Your task to perform on an android device: change the clock display to analog Image 0: 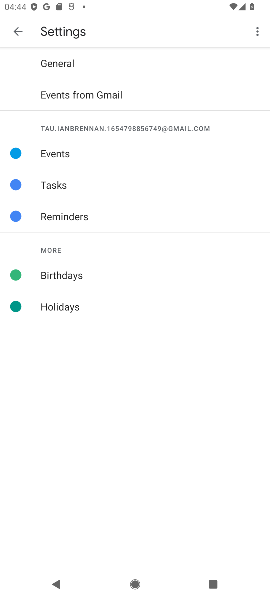
Step 0: press home button
Your task to perform on an android device: change the clock display to analog Image 1: 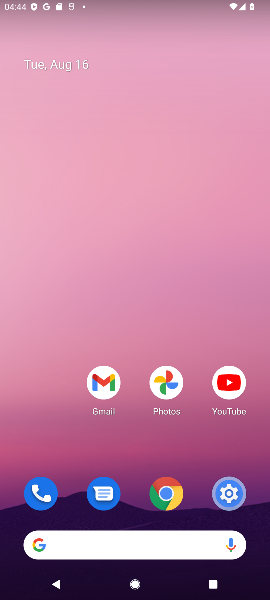
Step 1: drag from (70, 469) to (74, 119)
Your task to perform on an android device: change the clock display to analog Image 2: 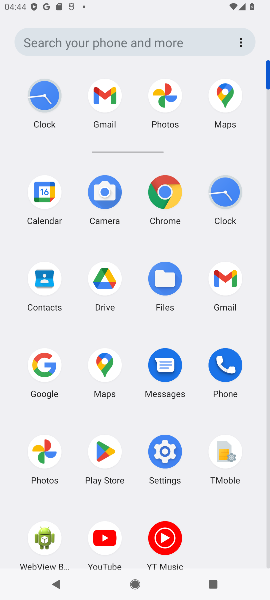
Step 2: click (218, 187)
Your task to perform on an android device: change the clock display to analog Image 3: 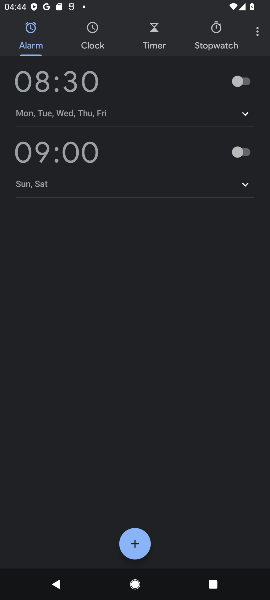
Step 3: click (259, 32)
Your task to perform on an android device: change the clock display to analog Image 4: 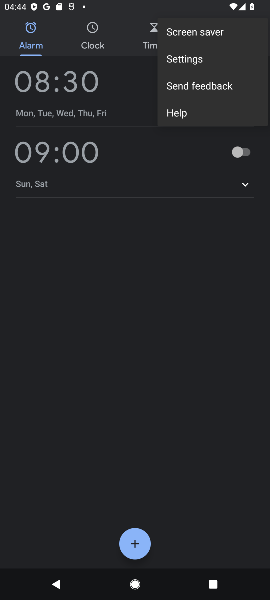
Step 4: click (184, 61)
Your task to perform on an android device: change the clock display to analog Image 5: 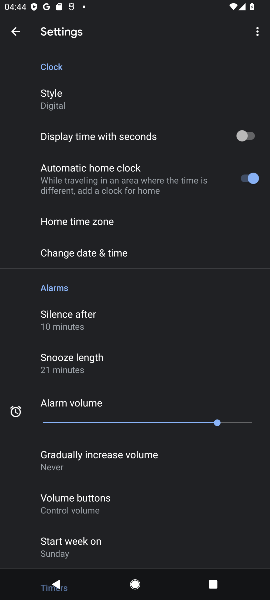
Step 5: drag from (169, 285) to (201, 181)
Your task to perform on an android device: change the clock display to analog Image 6: 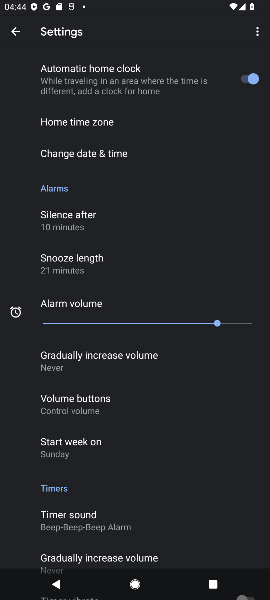
Step 6: drag from (179, 418) to (213, 186)
Your task to perform on an android device: change the clock display to analog Image 7: 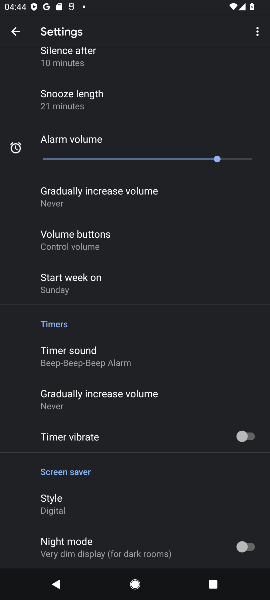
Step 7: drag from (172, 399) to (211, 151)
Your task to perform on an android device: change the clock display to analog Image 8: 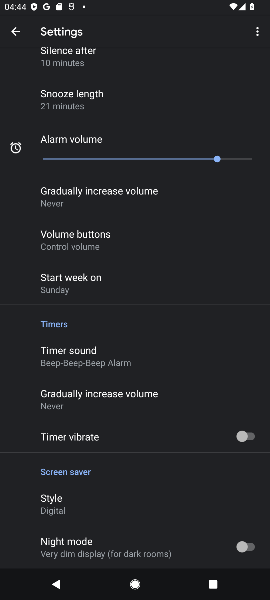
Step 8: drag from (204, 94) to (194, 270)
Your task to perform on an android device: change the clock display to analog Image 9: 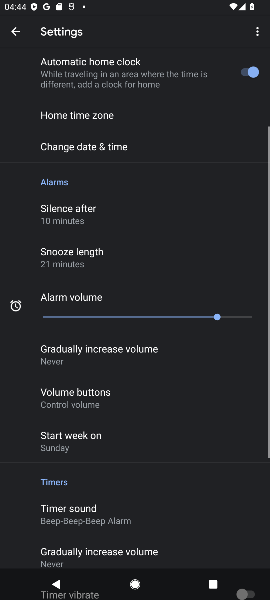
Step 9: drag from (184, 89) to (174, 267)
Your task to perform on an android device: change the clock display to analog Image 10: 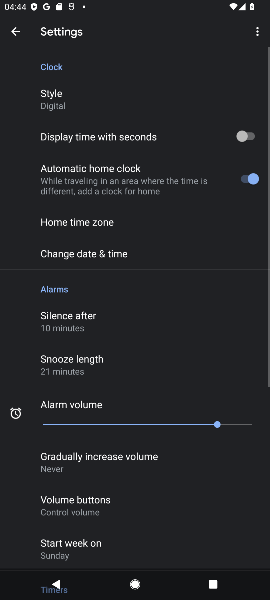
Step 10: drag from (170, 65) to (173, 236)
Your task to perform on an android device: change the clock display to analog Image 11: 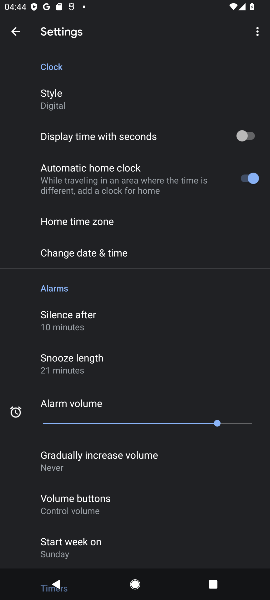
Step 11: click (74, 109)
Your task to perform on an android device: change the clock display to analog Image 12: 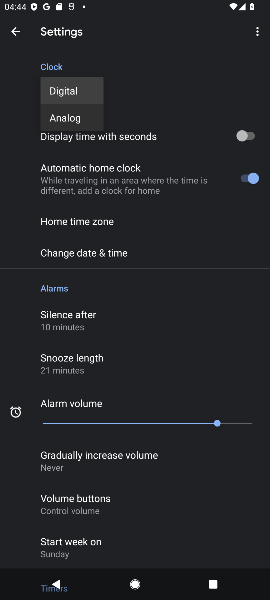
Step 12: click (82, 124)
Your task to perform on an android device: change the clock display to analog Image 13: 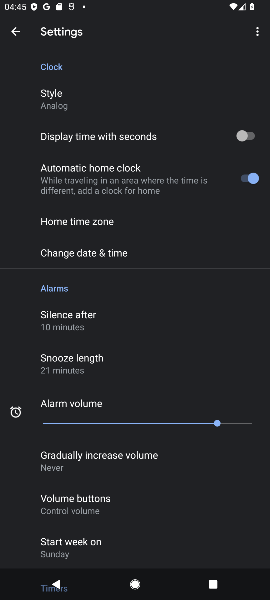
Step 13: task complete